Your task to perform on an android device: Open calendar and show me the second week of next month Image 0: 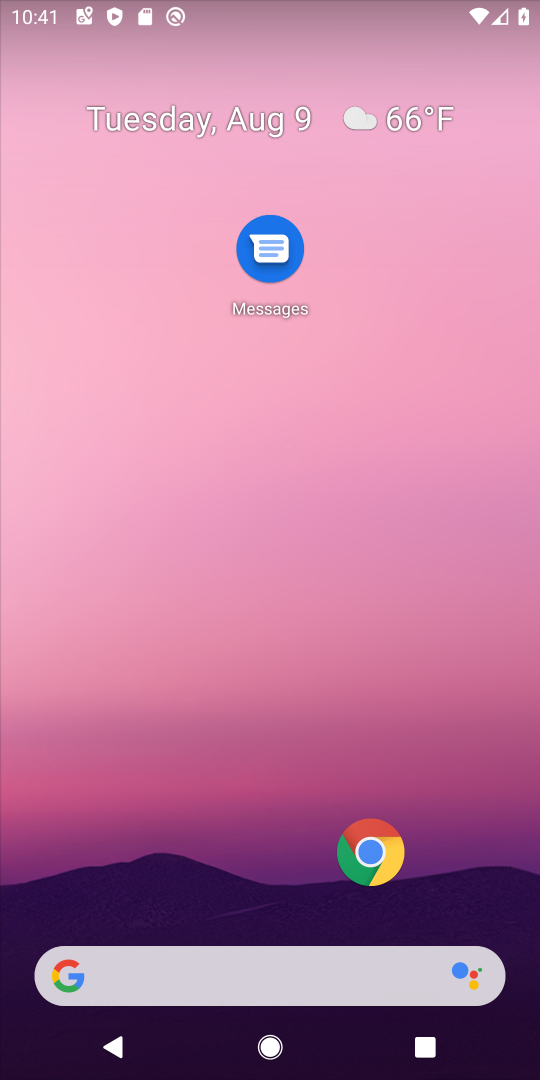
Step 0: click (243, 128)
Your task to perform on an android device: Open calendar and show me the second week of next month Image 1: 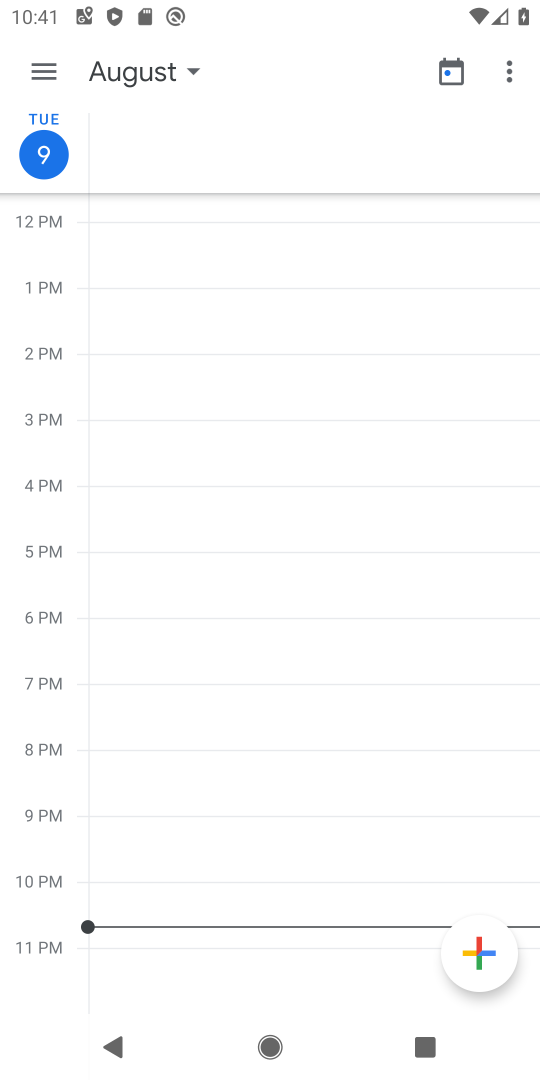
Step 1: click (178, 79)
Your task to perform on an android device: Open calendar and show me the second week of next month Image 2: 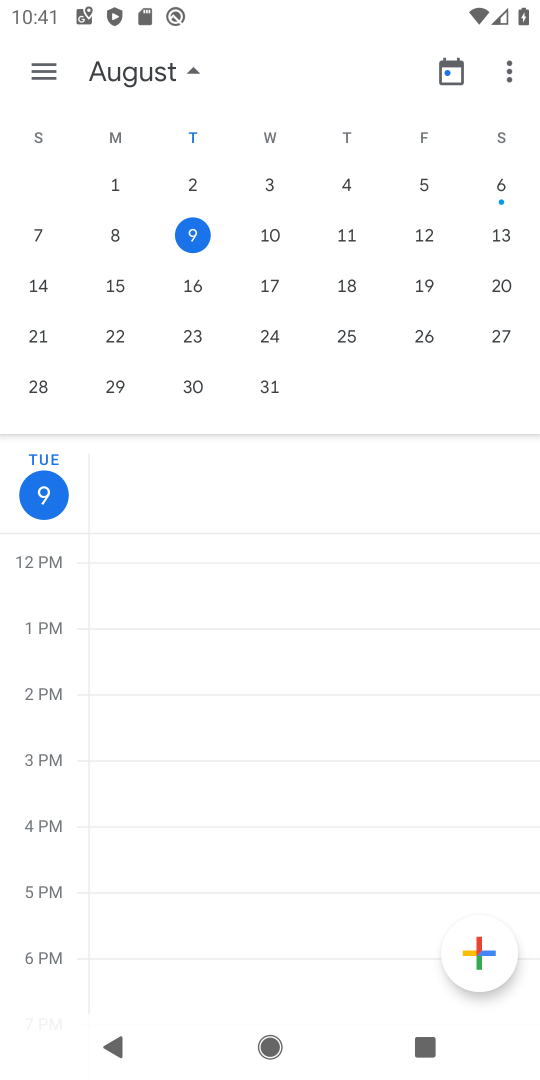
Step 2: drag from (476, 400) to (151, 383)
Your task to perform on an android device: Open calendar and show me the second week of next month Image 3: 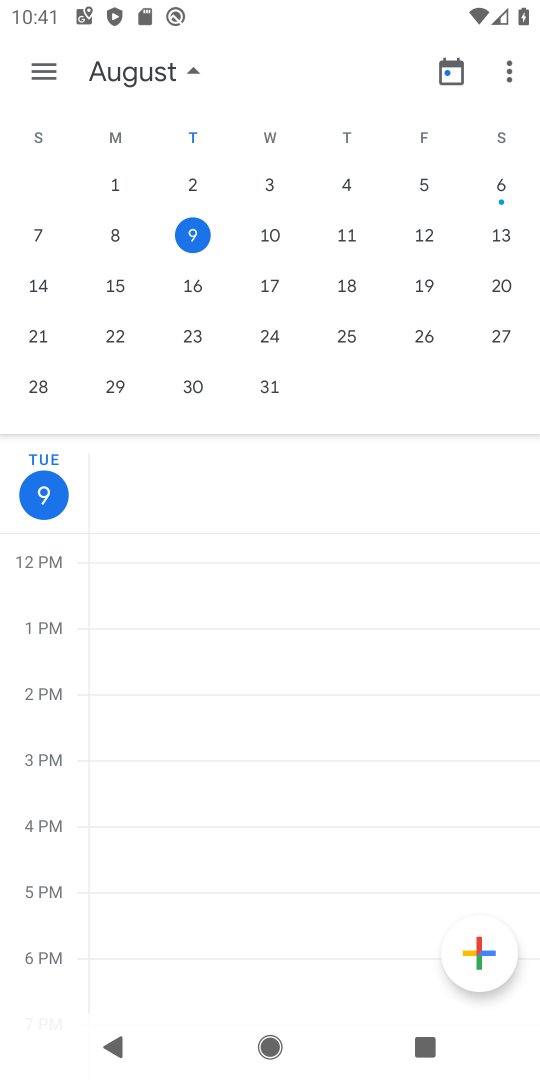
Step 3: click (438, 236)
Your task to perform on an android device: Open calendar and show me the second week of next month Image 4: 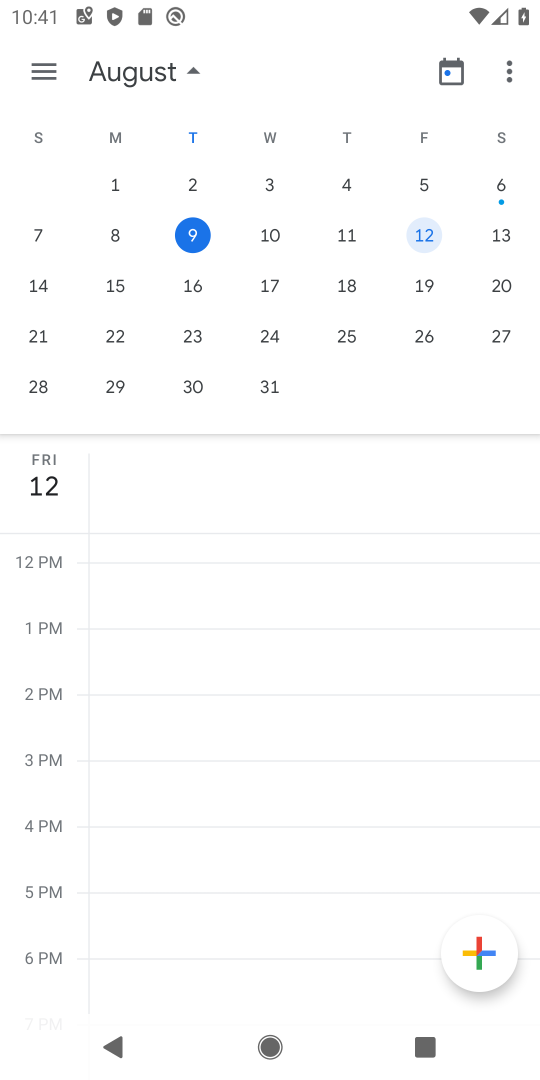
Step 4: drag from (475, 389) to (23, 423)
Your task to perform on an android device: Open calendar and show me the second week of next month Image 5: 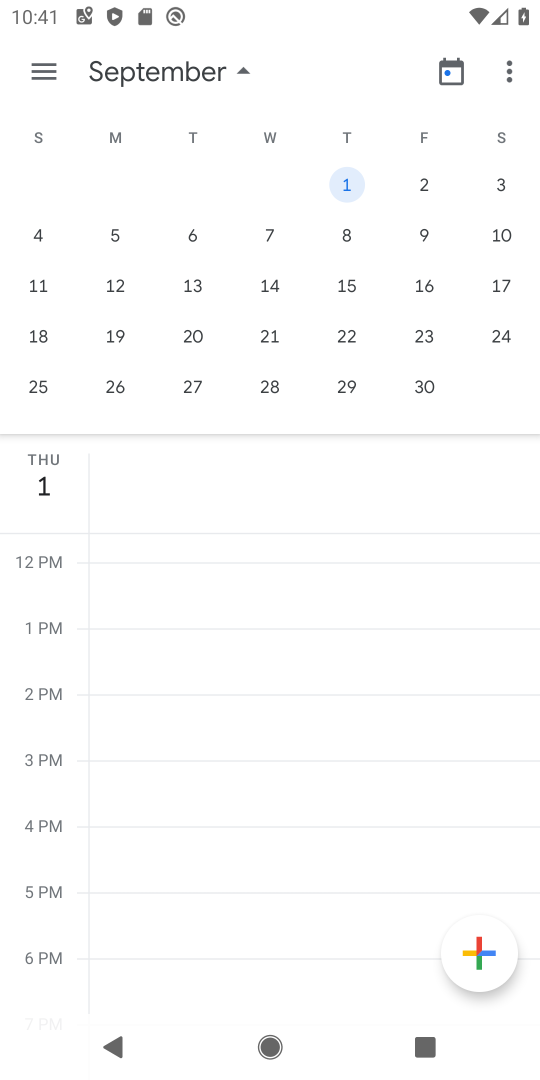
Step 5: click (357, 235)
Your task to perform on an android device: Open calendar and show me the second week of next month Image 6: 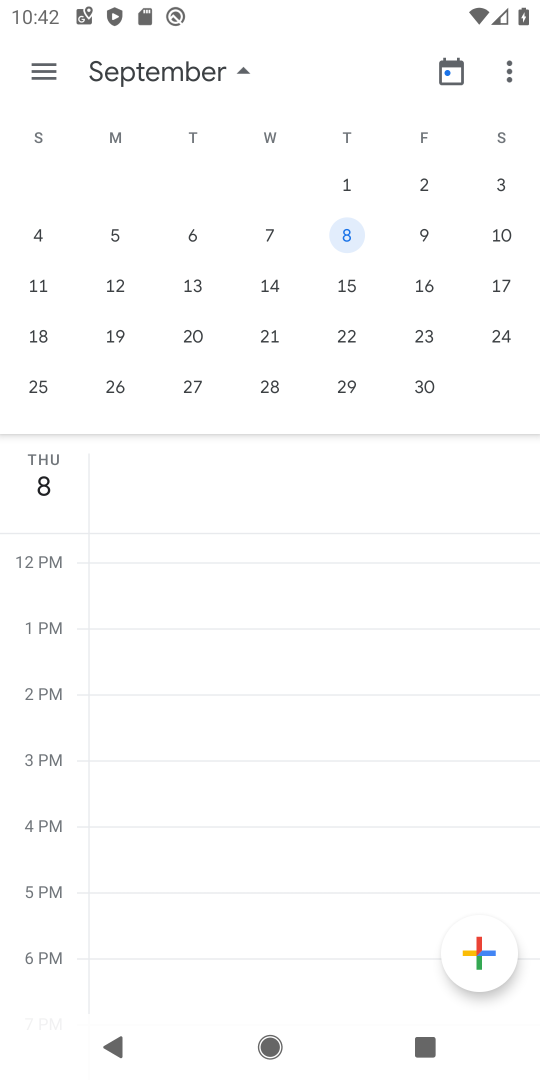
Step 6: task complete